Your task to perform on an android device: Go to display settings Image 0: 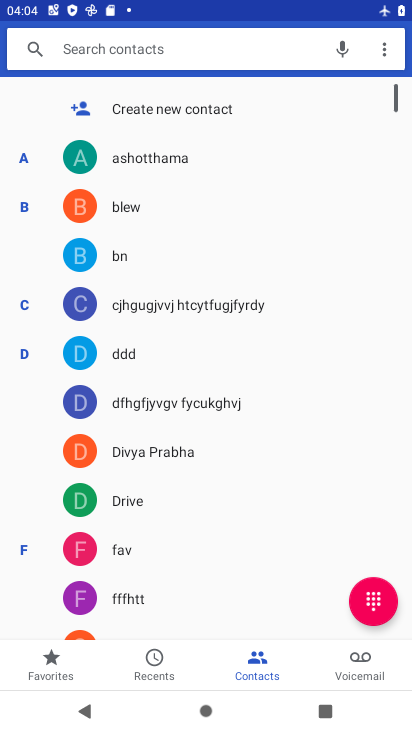
Step 0: press home button
Your task to perform on an android device: Go to display settings Image 1: 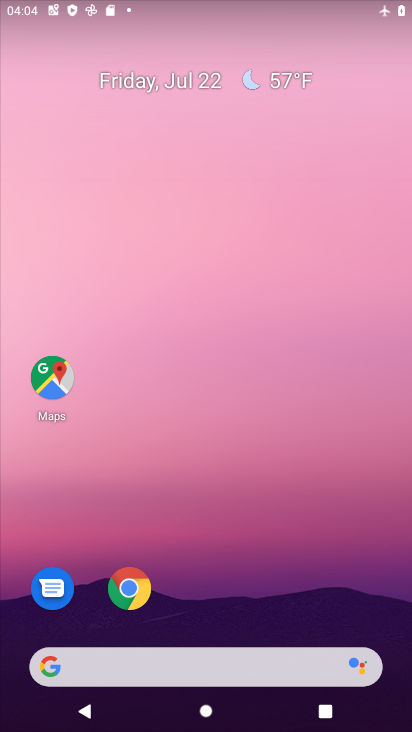
Step 1: drag from (233, 632) to (207, 46)
Your task to perform on an android device: Go to display settings Image 2: 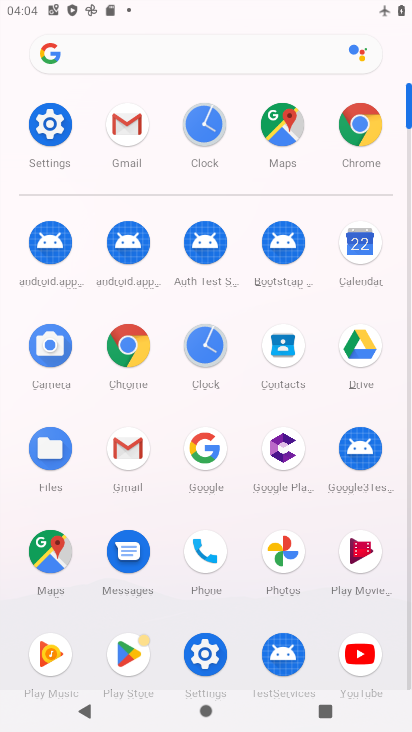
Step 2: click (49, 102)
Your task to perform on an android device: Go to display settings Image 3: 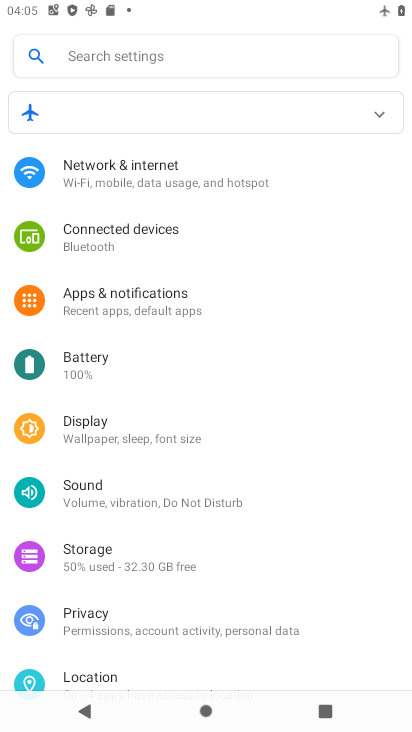
Step 3: click (102, 418)
Your task to perform on an android device: Go to display settings Image 4: 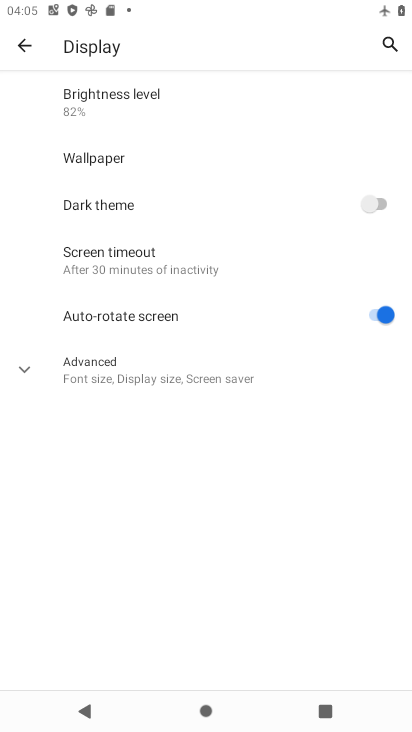
Step 4: click (73, 374)
Your task to perform on an android device: Go to display settings Image 5: 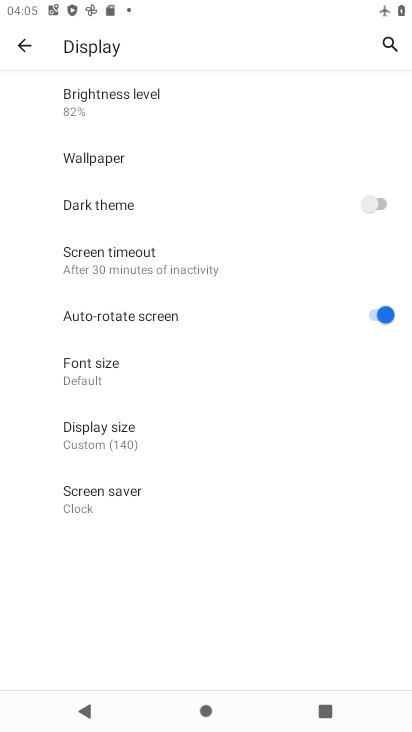
Step 5: task complete